Your task to perform on an android device: check out phone information Image 0: 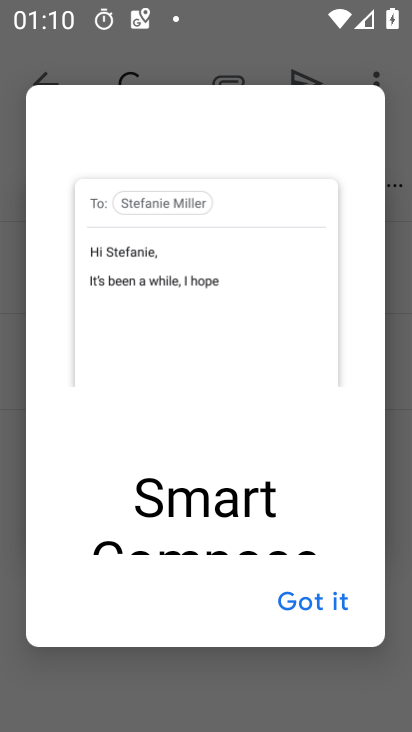
Step 0: click (312, 613)
Your task to perform on an android device: check out phone information Image 1: 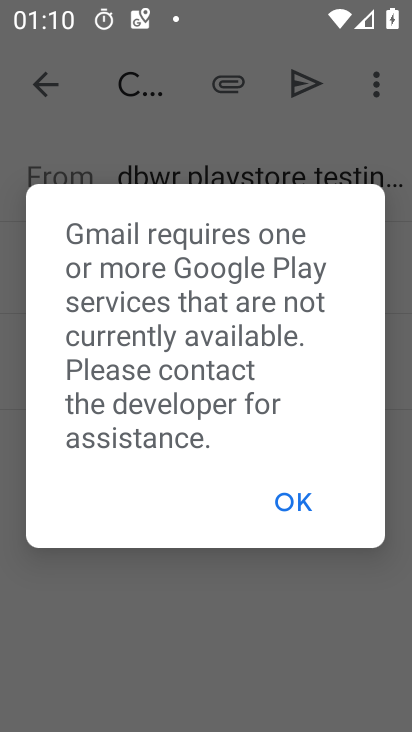
Step 1: click (301, 507)
Your task to perform on an android device: check out phone information Image 2: 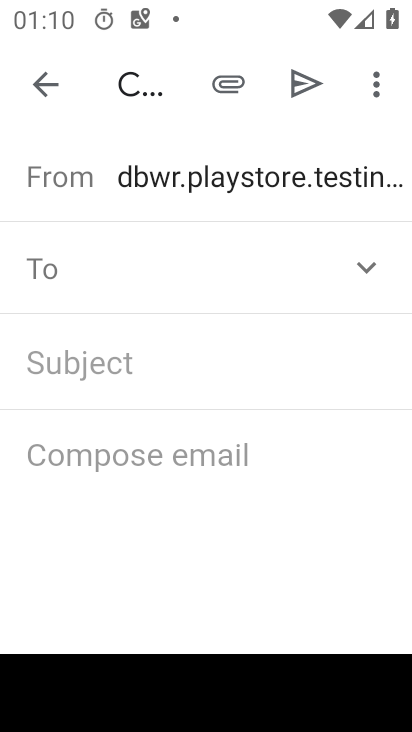
Step 2: click (50, 89)
Your task to perform on an android device: check out phone information Image 3: 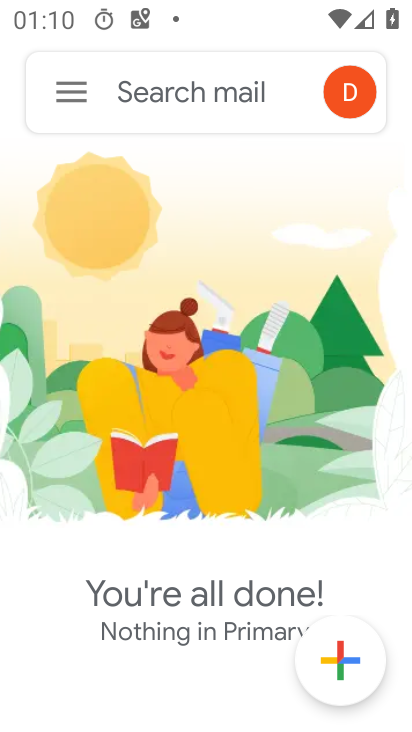
Step 3: press home button
Your task to perform on an android device: check out phone information Image 4: 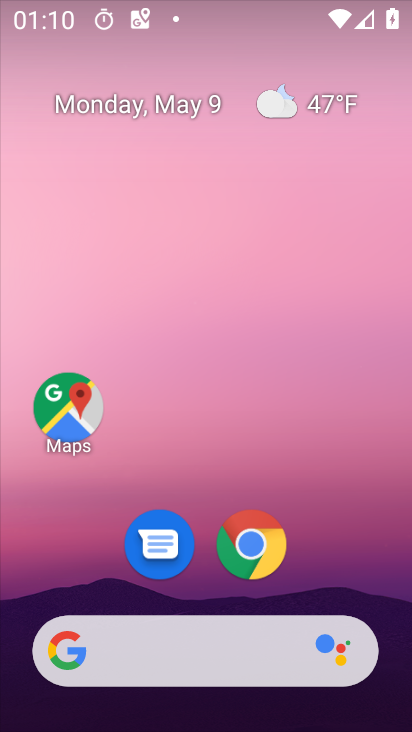
Step 4: drag from (207, 651) to (202, 2)
Your task to perform on an android device: check out phone information Image 5: 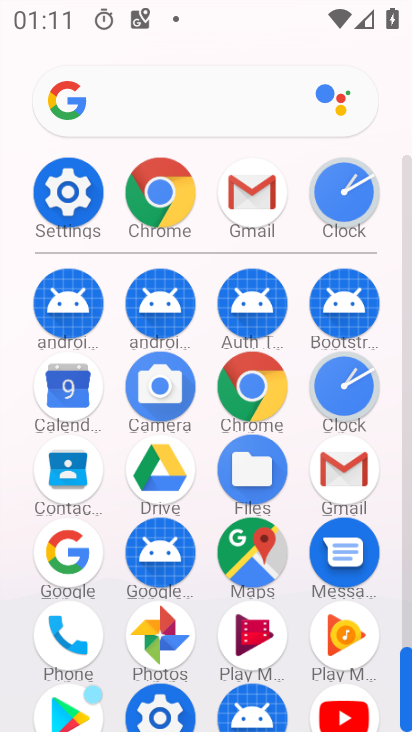
Step 5: drag from (216, 731) to (161, 730)
Your task to perform on an android device: check out phone information Image 6: 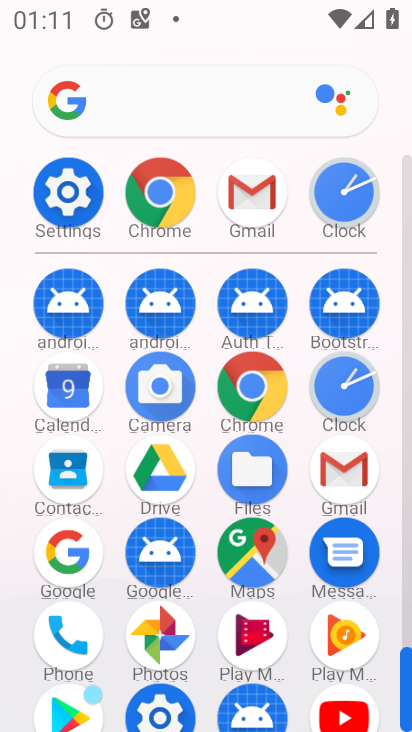
Step 6: drag from (163, 721) to (10, 58)
Your task to perform on an android device: check out phone information Image 7: 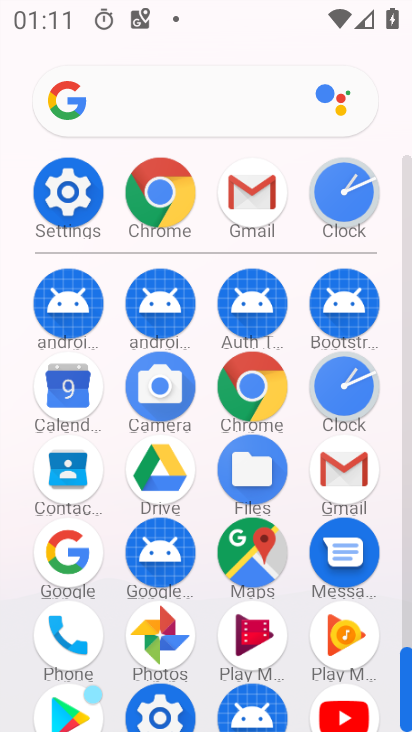
Step 7: click (146, 709)
Your task to perform on an android device: check out phone information Image 8: 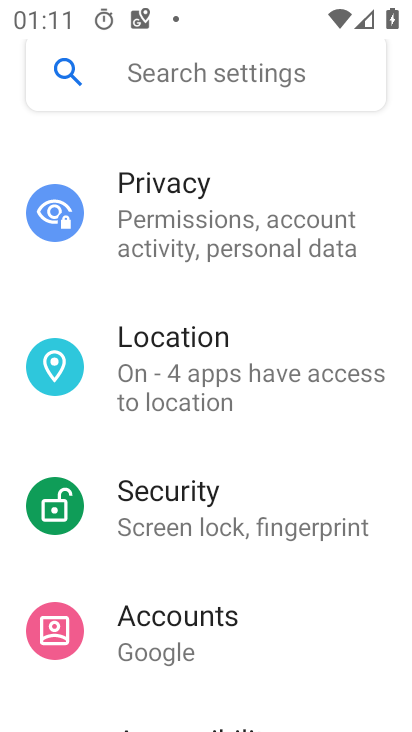
Step 8: drag from (255, 708) to (265, 84)
Your task to perform on an android device: check out phone information Image 9: 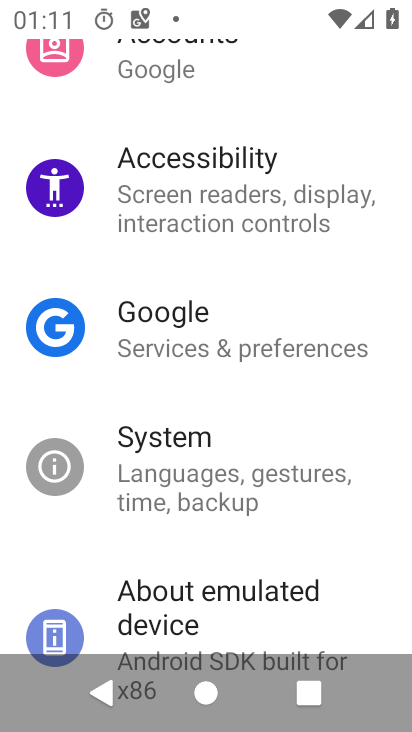
Step 9: drag from (251, 589) to (207, 100)
Your task to perform on an android device: check out phone information Image 10: 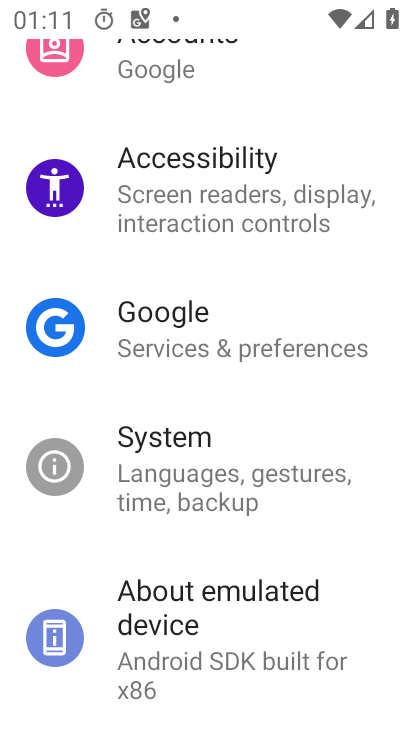
Step 10: click (227, 705)
Your task to perform on an android device: check out phone information Image 11: 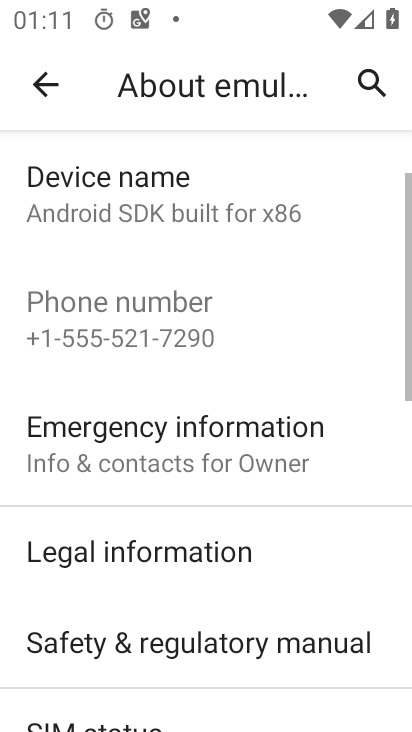
Step 11: task complete